Your task to perform on an android device: turn smart compose on in the gmail app Image 0: 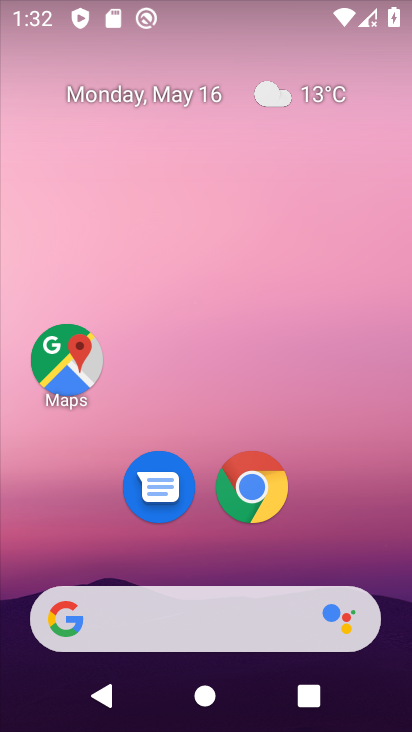
Step 0: drag from (391, 646) to (372, 295)
Your task to perform on an android device: turn smart compose on in the gmail app Image 1: 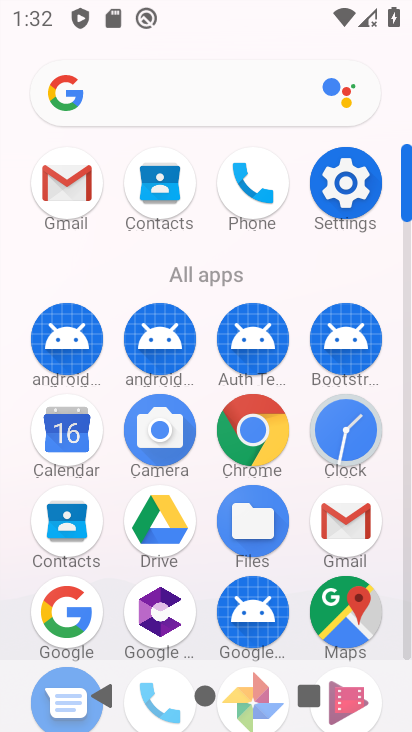
Step 1: click (357, 519)
Your task to perform on an android device: turn smart compose on in the gmail app Image 2: 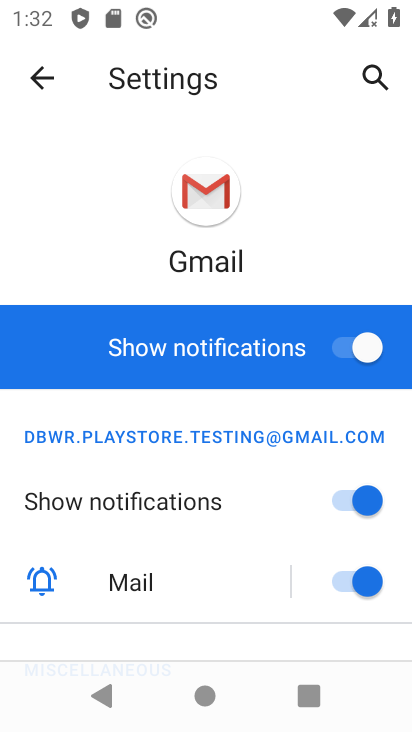
Step 2: drag from (350, 537) to (333, 472)
Your task to perform on an android device: turn smart compose on in the gmail app Image 3: 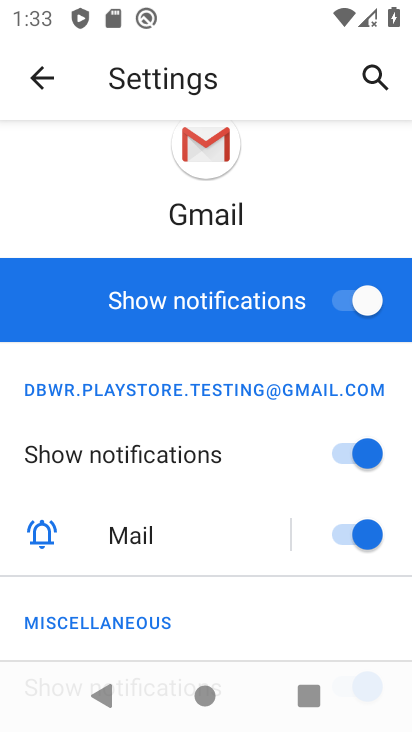
Step 3: click (28, 86)
Your task to perform on an android device: turn smart compose on in the gmail app Image 4: 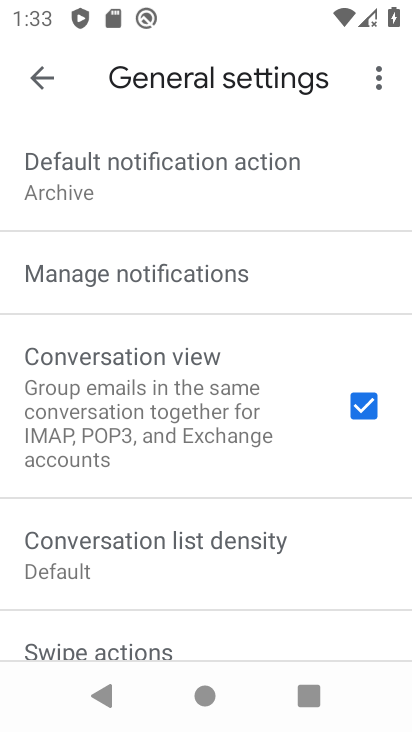
Step 4: click (33, 72)
Your task to perform on an android device: turn smart compose on in the gmail app Image 5: 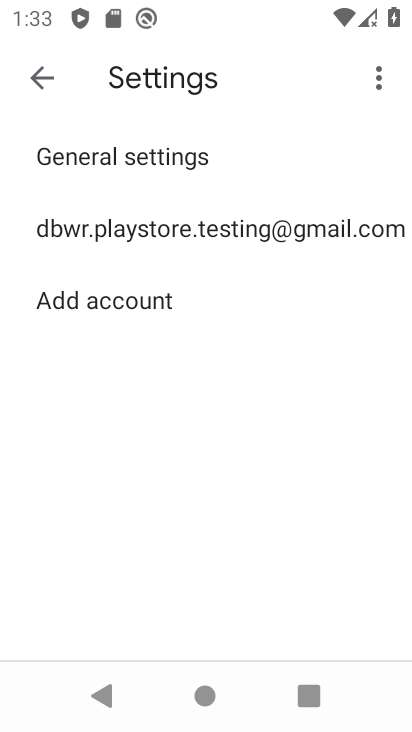
Step 5: click (78, 220)
Your task to perform on an android device: turn smart compose on in the gmail app Image 6: 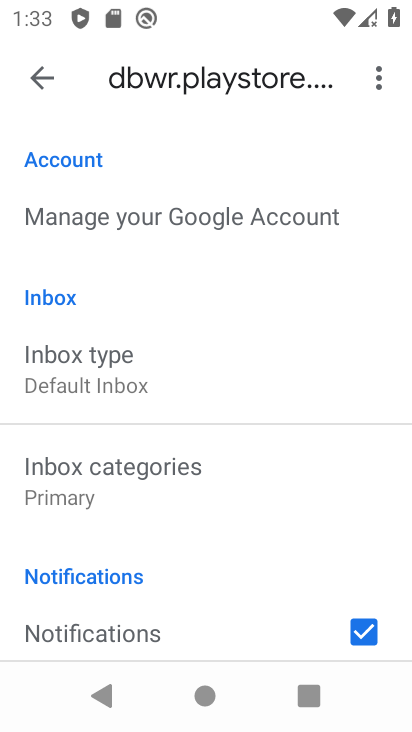
Step 6: task complete